Your task to perform on an android device: Open calendar and show me the fourth week of next month Image 0: 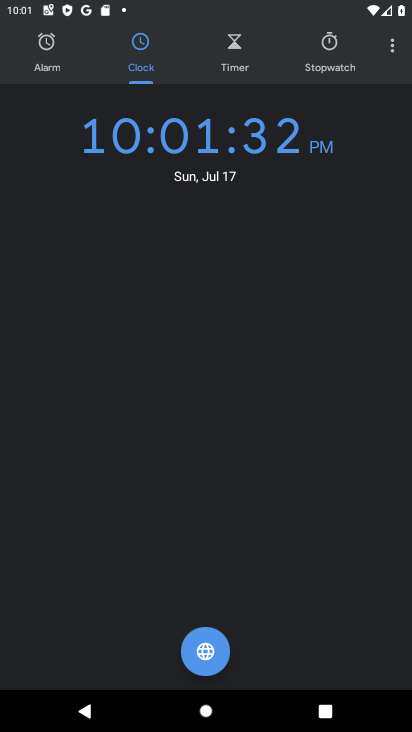
Step 0: press home button
Your task to perform on an android device: Open calendar and show me the fourth week of next month Image 1: 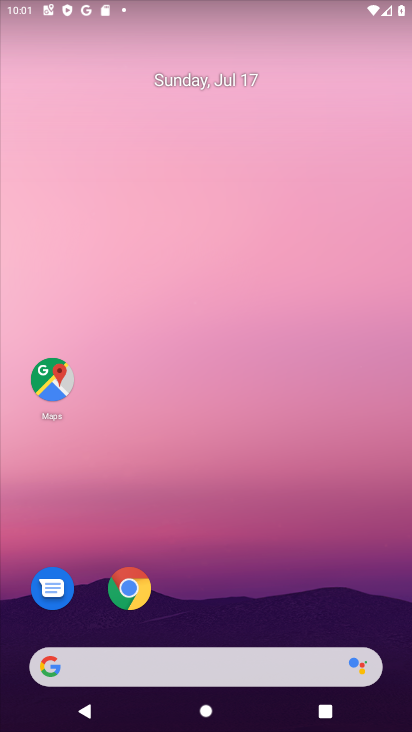
Step 1: drag from (180, 634) to (176, 42)
Your task to perform on an android device: Open calendar and show me the fourth week of next month Image 2: 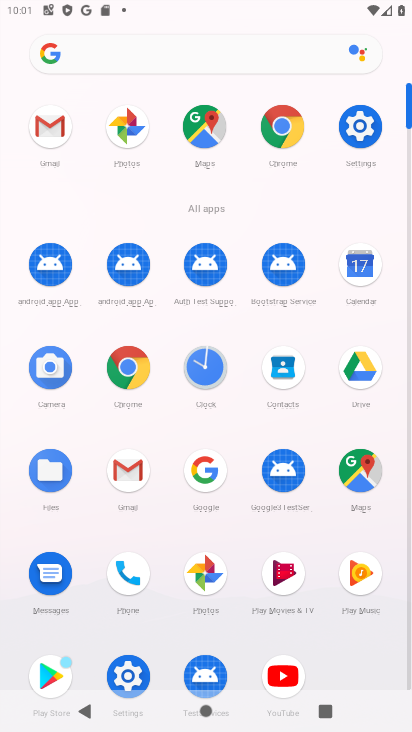
Step 2: click (374, 279)
Your task to perform on an android device: Open calendar and show me the fourth week of next month Image 3: 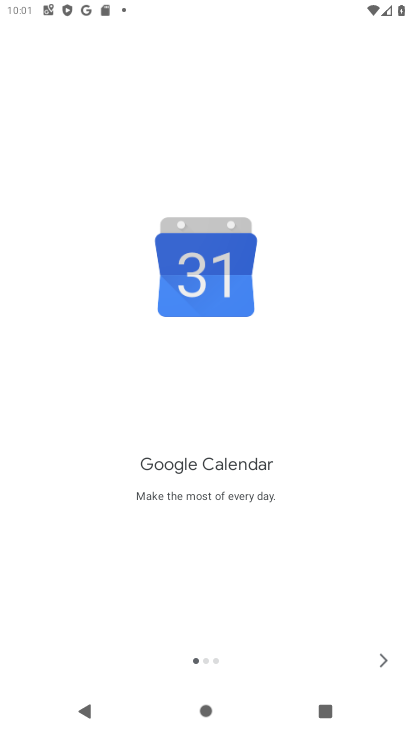
Step 3: click (386, 653)
Your task to perform on an android device: Open calendar and show me the fourth week of next month Image 4: 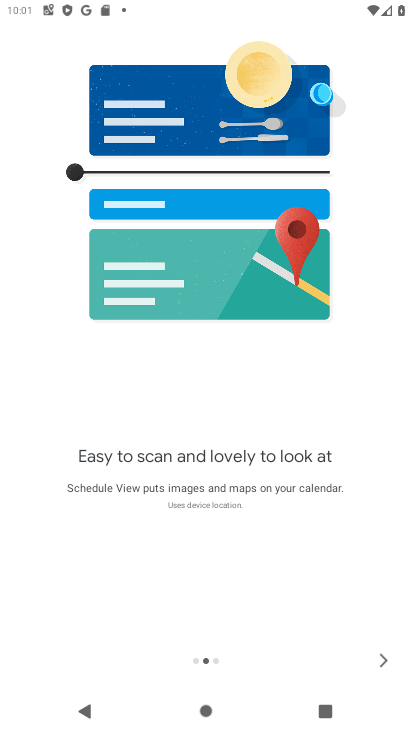
Step 4: click (382, 654)
Your task to perform on an android device: Open calendar and show me the fourth week of next month Image 5: 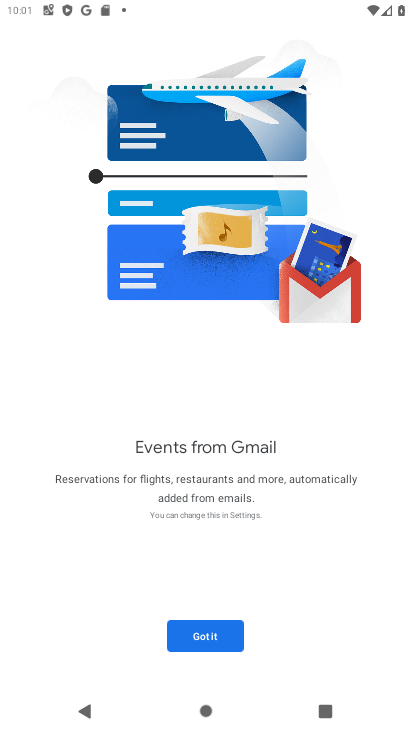
Step 5: click (223, 628)
Your task to perform on an android device: Open calendar and show me the fourth week of next month Image 6: 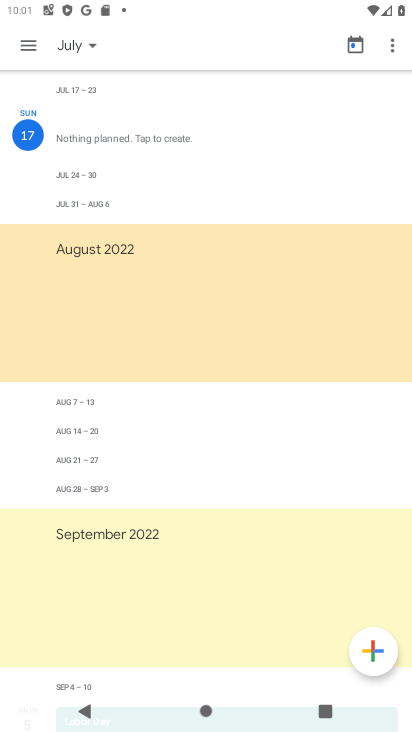
Step 6: click (43, 46)
Your task to perform on an android device: Open calendar and show me the fourth week of next month Image 7: 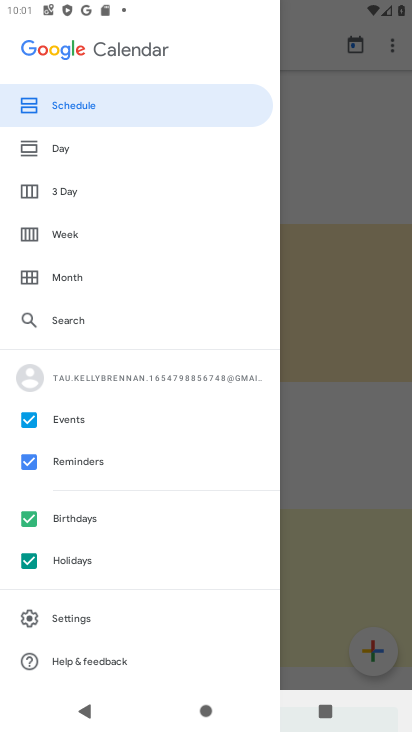
Step 7: click (73, 234)
Your task to perform on an android device: Open calendar and show me the fourth week of next month Image 8: 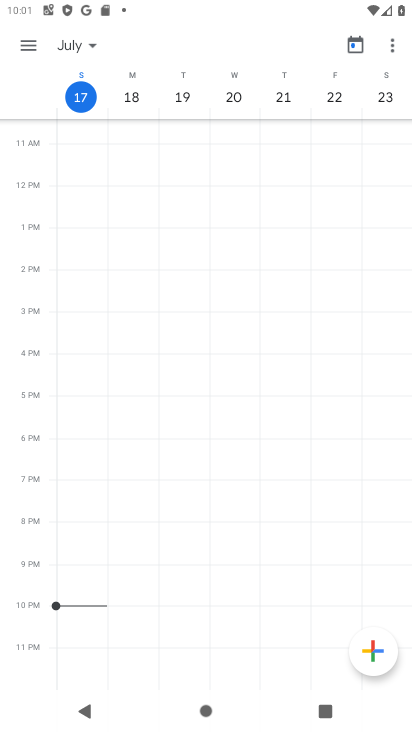
Step 8: task complete